Your task to perform on an android device: Show me popular videos on Youtube Image 0: 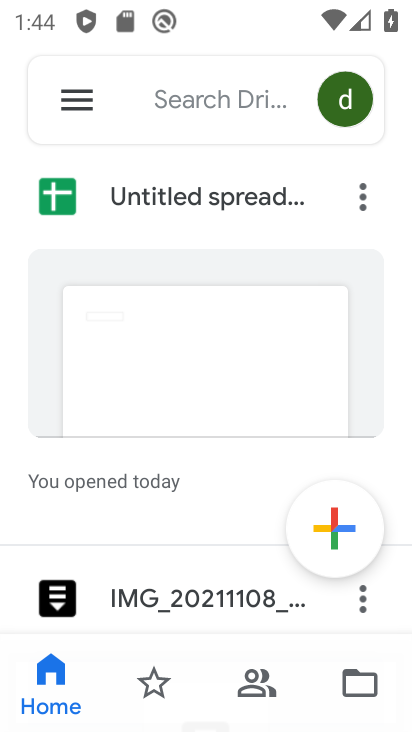
Step 0: press home button
Your task to perform on an android device: Show me popular videos on Youtube Image 1: 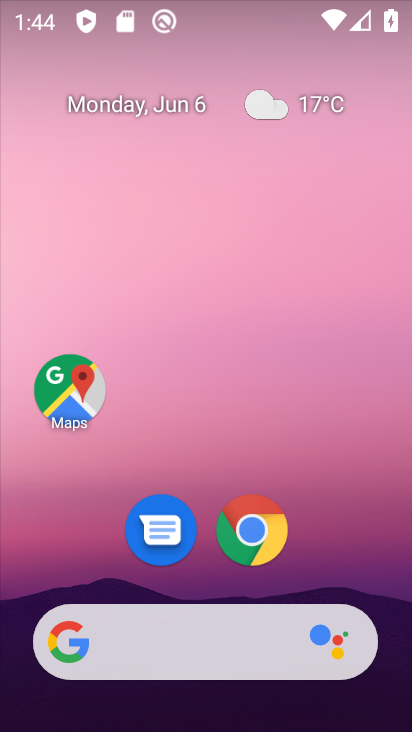
Step 1: drag from (332, 556) to (331, 220)
Your task to perform on an android device: Show me popular videos on Youtube Image 2: 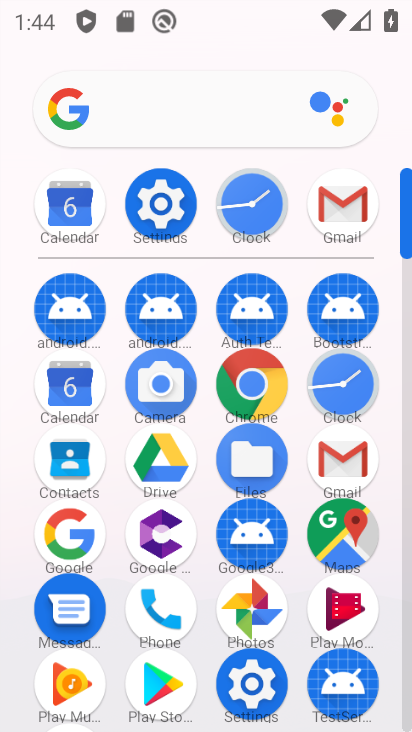
Step 2: drag from (294, 581) to (306, 308)
Your task to perform on an android device: Show me popular videos on Youtube Image 3: 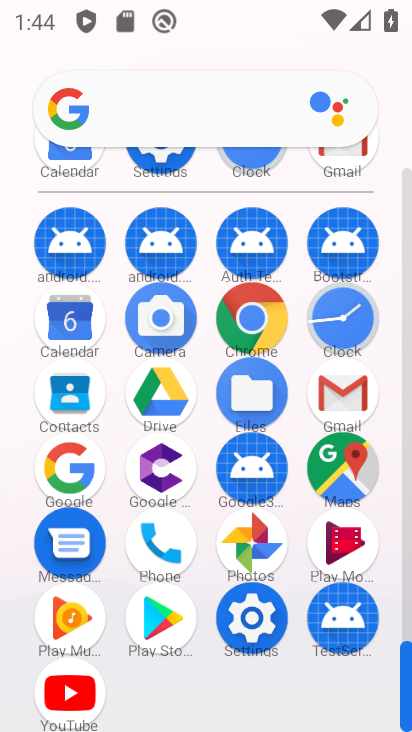
Step 3: click (64, 692)
Your task to perform on an android device: Show me popular videos on Youtube Image 4: 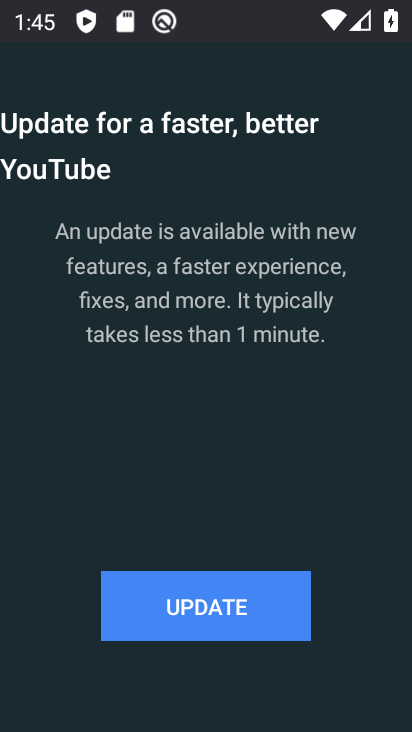
Step 4: task complete